Your task to perform on an android device: turn off location Image 0: 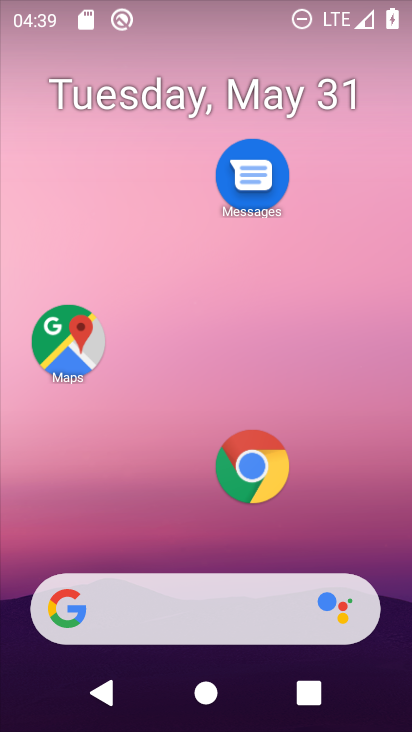
Step 0: drag from (205, 447) to (267, 56)
Your task to perform on an android device: turn off location Image 1: 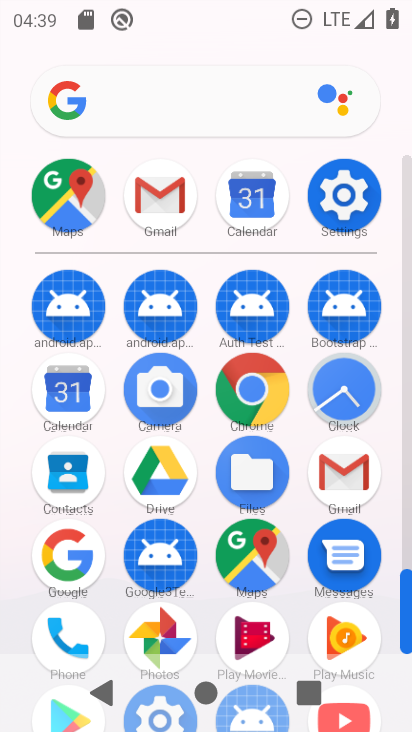
Step 1: click (344, 188)
Your task to perform on an android device: turn off location Image 2: 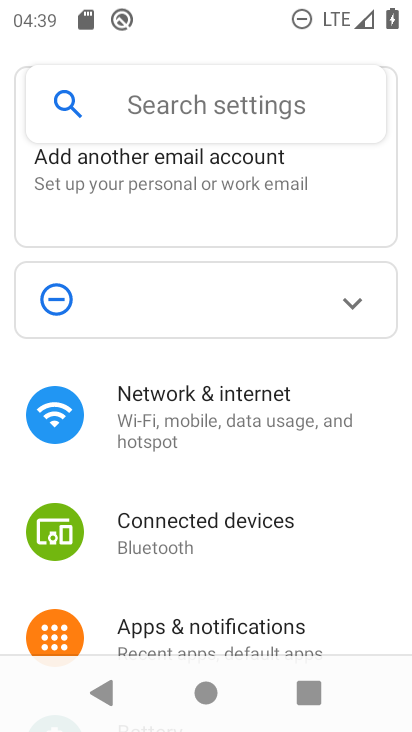
Step 2: drag from (201, 582) to (221, 153)
Your task to perform on an android device: turn off location Image 3: 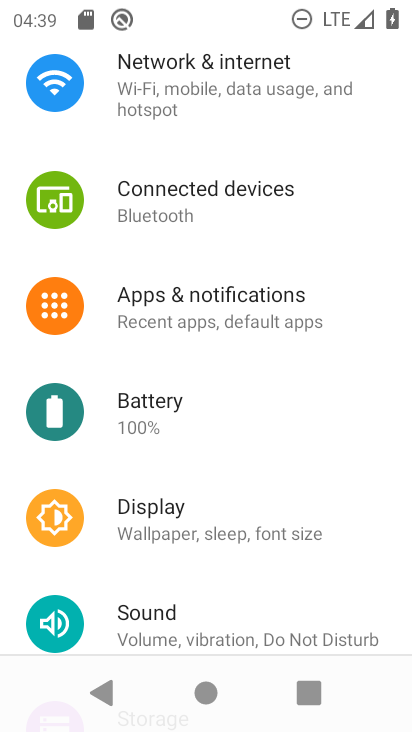
Step 3: drag from (200, 567) to (242, 108)
Your task to perform on an android device: turn off location Image 4: 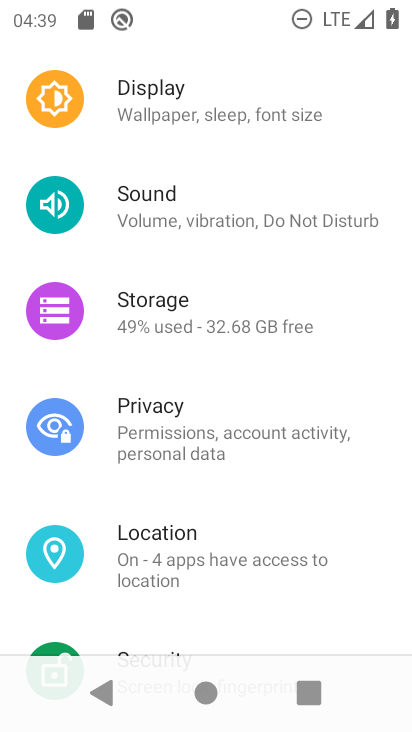
Step 4: click (204, 549)
Your task to perform on an android device: turn off location Image 5: 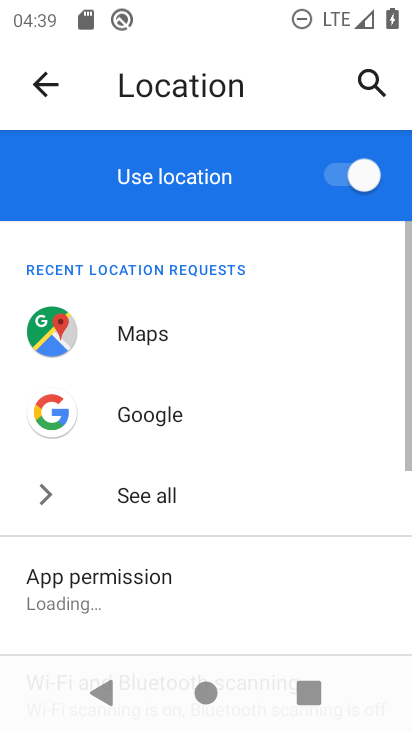
Step 5: click (361, 168)
Your task to perform on an android device: turn off location Image 6: 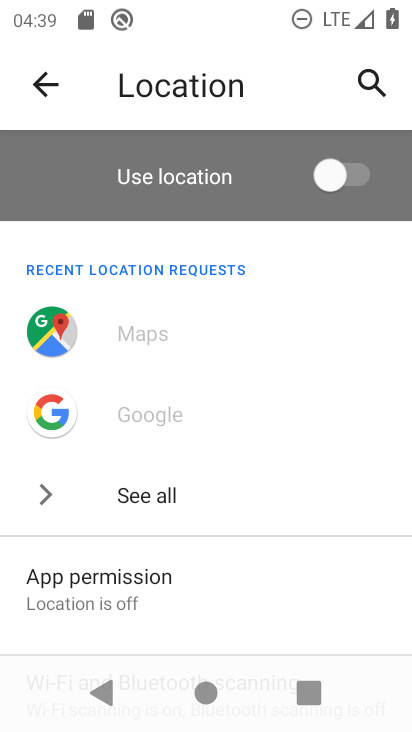
Step 6: task complete